Your task to perform on an android device: turn off notifications in google photos Image 0: 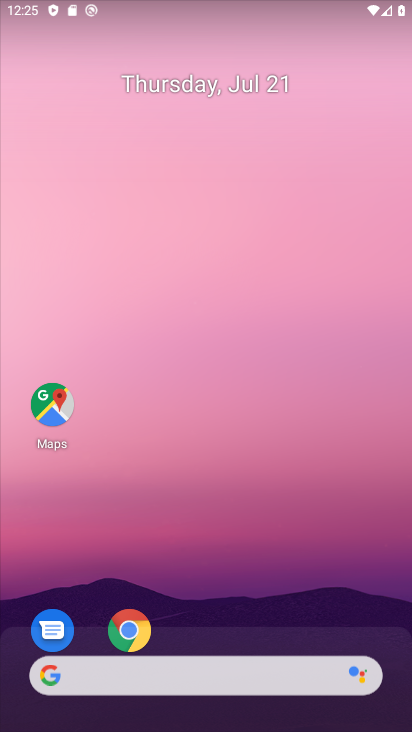
Step 0: drag from (217, 520) to (198, 8)
Your task to perform on an android device: turn off notifications in google photos Image 1: 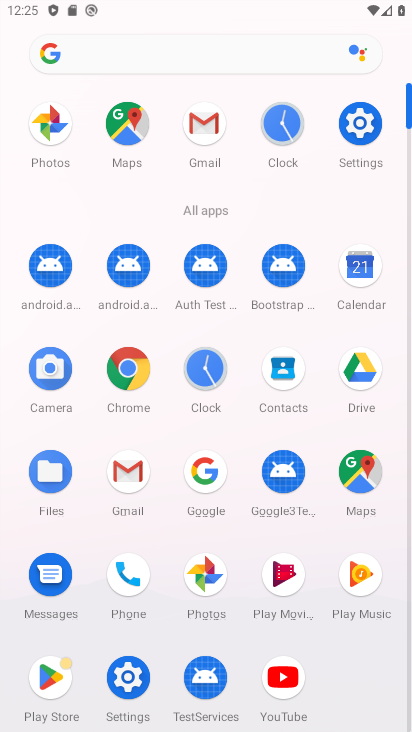
Step 1: click (138, 685)
Your task to perform on an android device: turn off notifications in google photos Image 2: 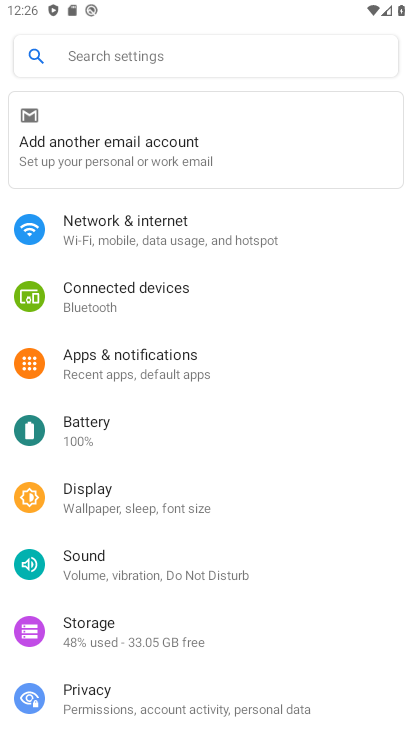
Step 2: press home button
Your task to perform on an android device: turn off notifications in google photos Image 3: 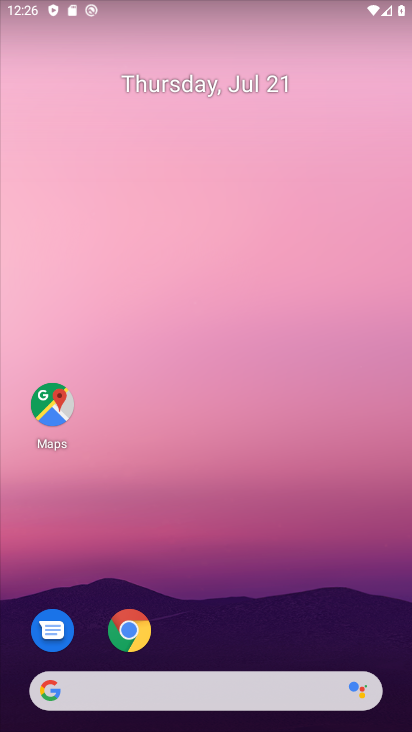
Step 3: drag from (287, 511) to (257, 357)
Your task to perform on an android device: turn off notifications in google photos Image 4: 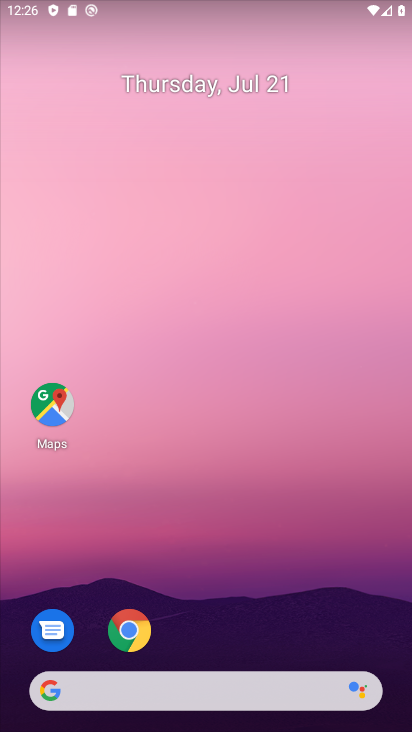
Step 4: drag from (261, 609) to (233, 96)
Your task to perform on an android device: turn off notifications in google photos Image 5: 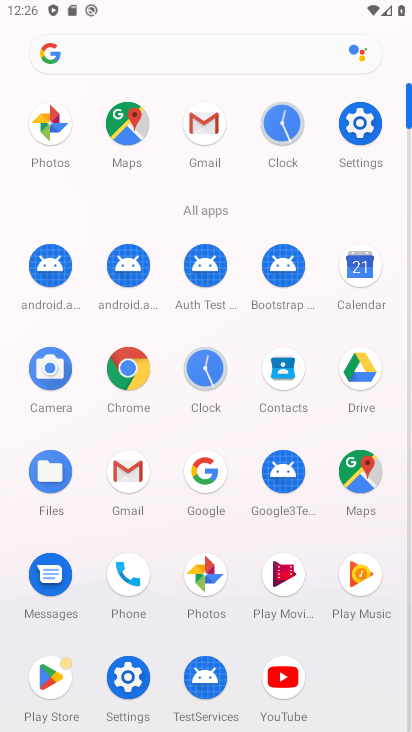
Step 5: click (215, 600)
Your task to perform on an android device: turn off notifications in google photos Image 6: 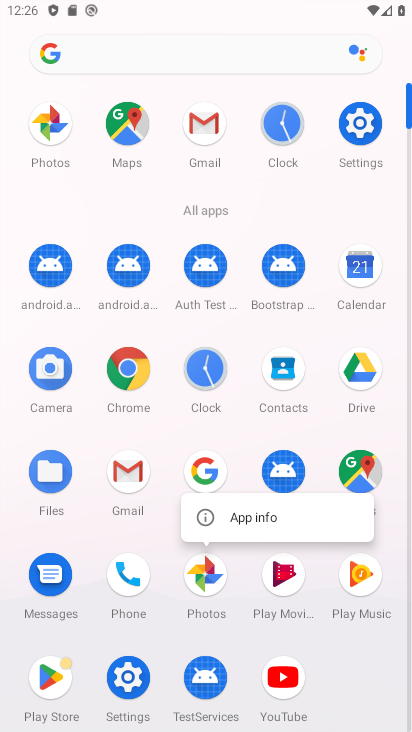
Step 6: click (274, 518)
Your task to perform on an android device: turn off notifications in google photos Image 7: 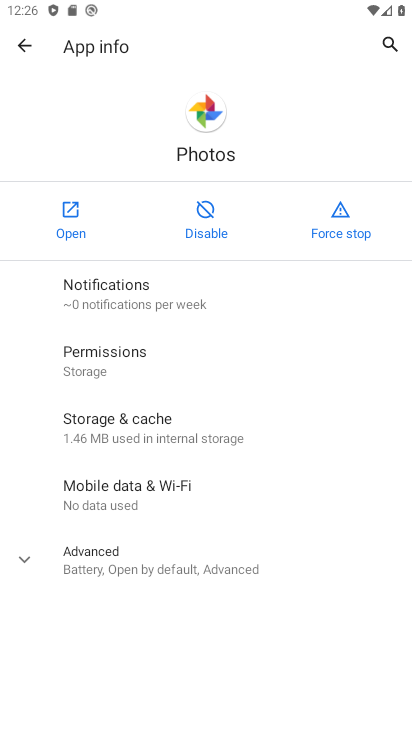
Step 7: click (142, 282)
Your task to perform on an android device: turn off notifications in google photos Image 8: 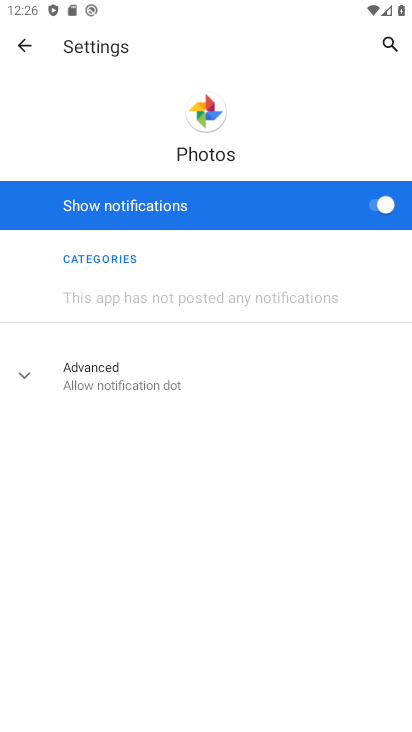
Step 8: click (345, 214)
Your task to perform on an android device: turn off notifications in google photos Image 9: 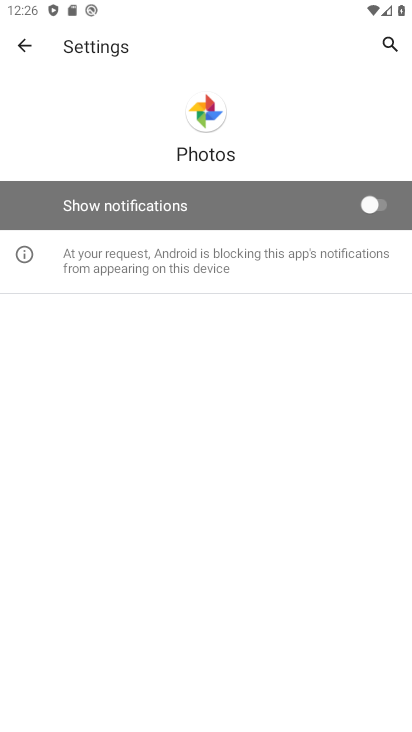
Step 9: task complete